Your task to perform on an android device: Search for the best rated phone case for the iPhone 8. Image 0: 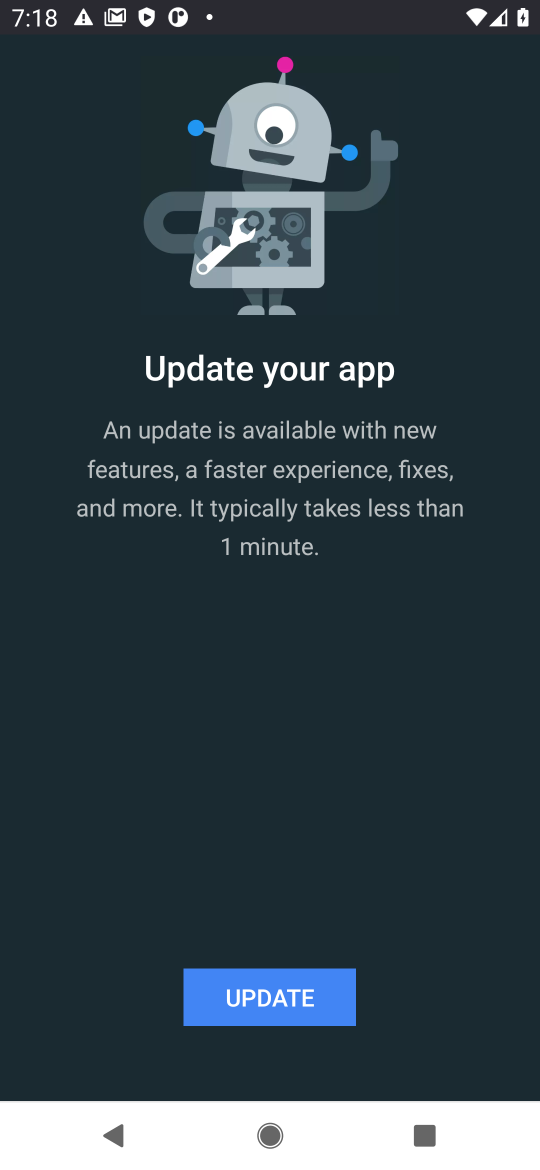
Step 0: press home button
Your task to perform on an android device: Search for the best rated phone case for the iPhone 8. Image 1: 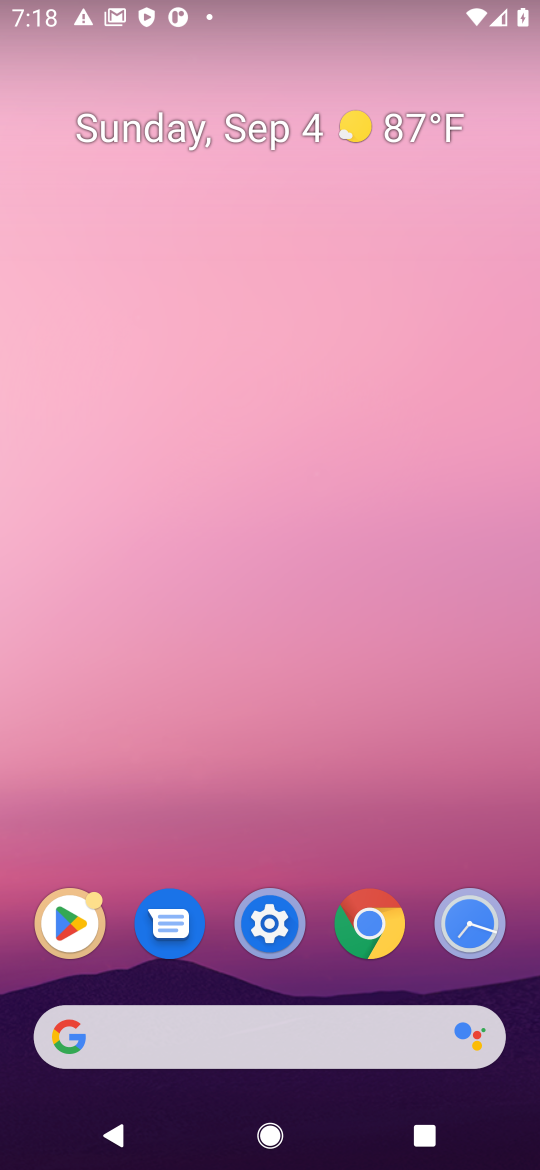
Step 1: click (335, 1031)
Your task to perform on an android device: Search for the best rated phone case for the iPhone 8. Image 2: 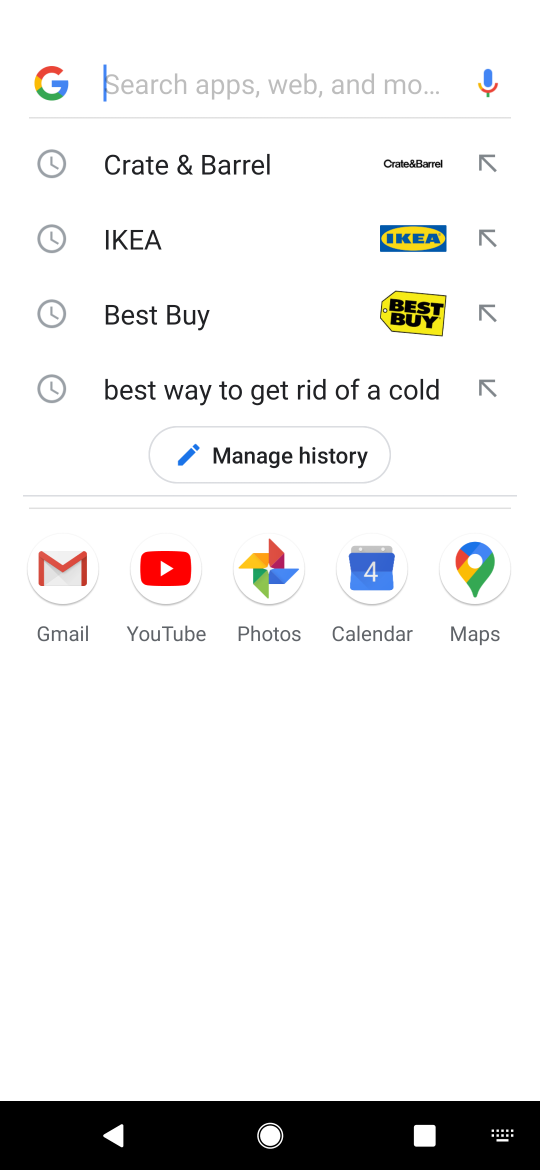
Step 2: press enter
Your task to perform on an android device: Search for the best rated phone case for the iPhone 8. Image 3: 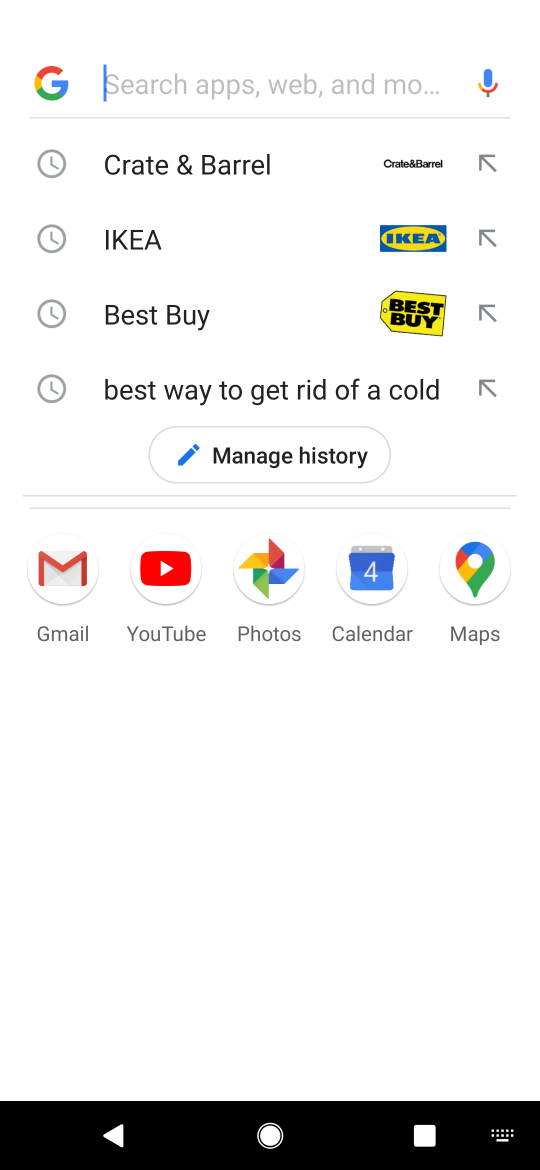
Step 3: type " best rated phone case for the iPhone 8"
Your task to perform on an android device: Search for the best rated phone case for the iPhone 8. Image 4: 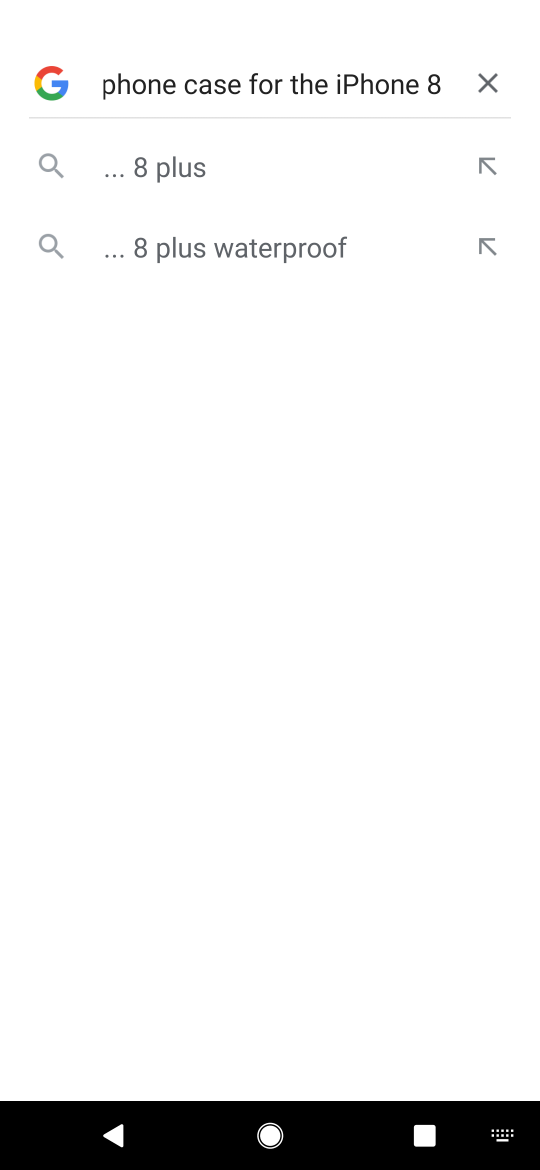
Step 4: click (58, 69)
Your task to perform on an android device: Search for the best rated phone case for the iPhone 8. Image 5: 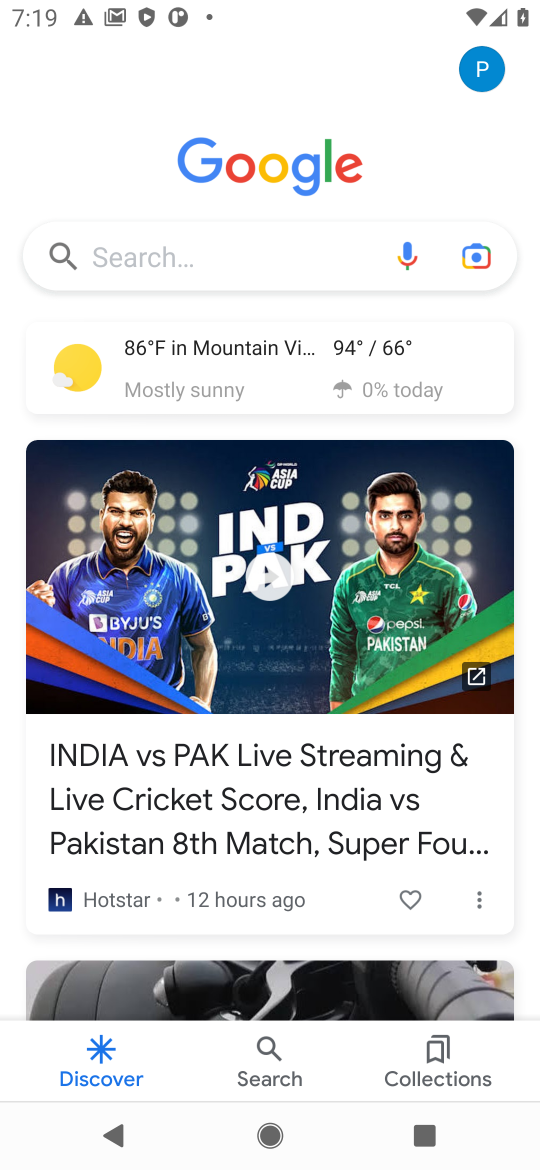
Step 5: click (229, 256)
Your task to perform on an android device: Search for the best rated phone case for the iPhone 8. Image 6: 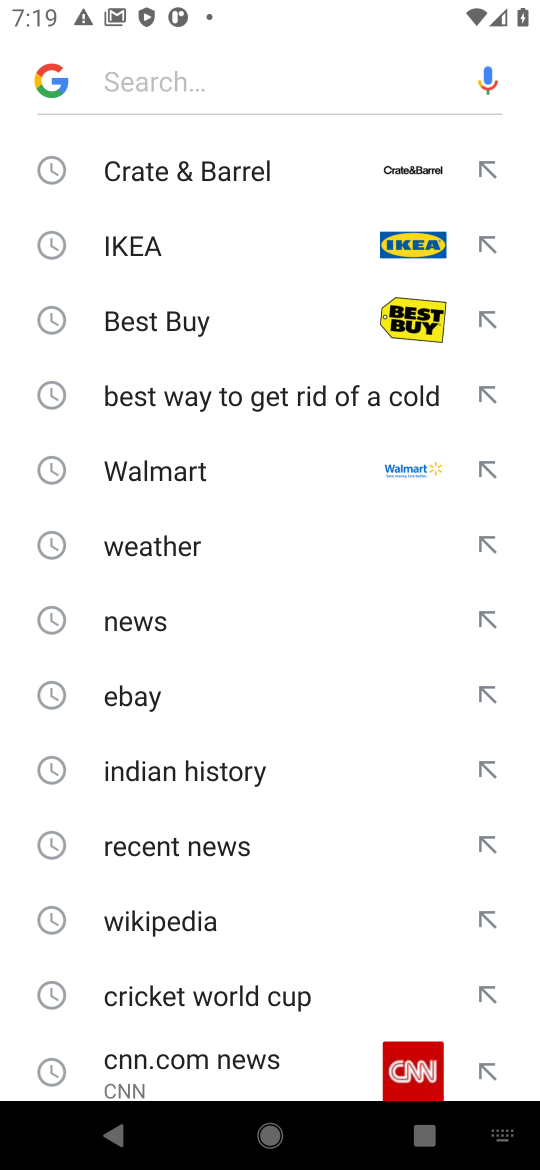
Step 6: type "best rated phone case for the iPhone 8"
Your task to perform on an android device: Search for the best rated phone case for the iPhone 8. Image 7: 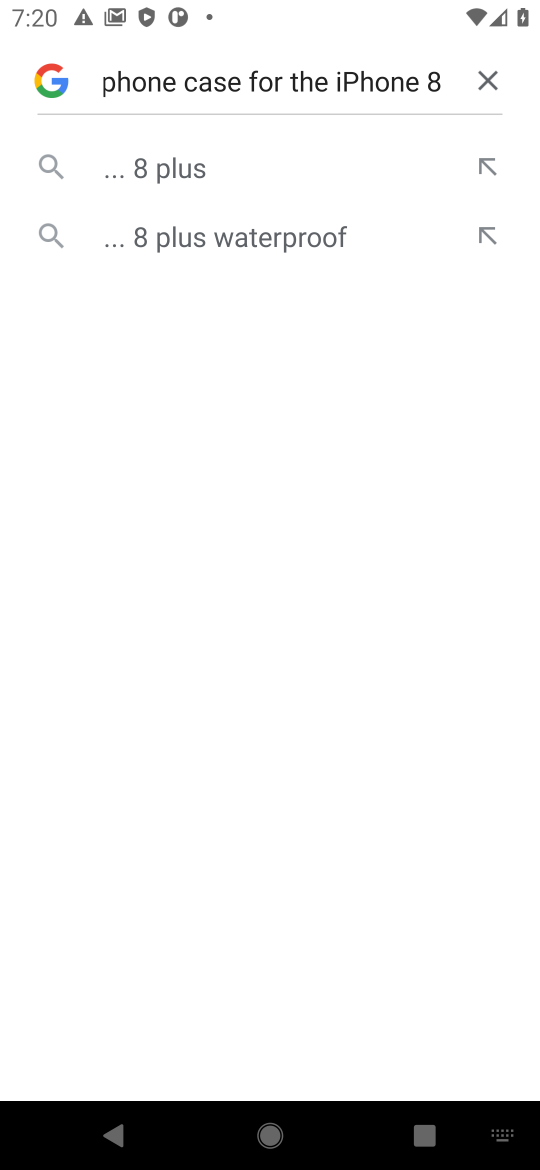
Step 7: press enter
Your task to perform on an android device: Search for the best rated phone case for the iPhone 8. Image 8: 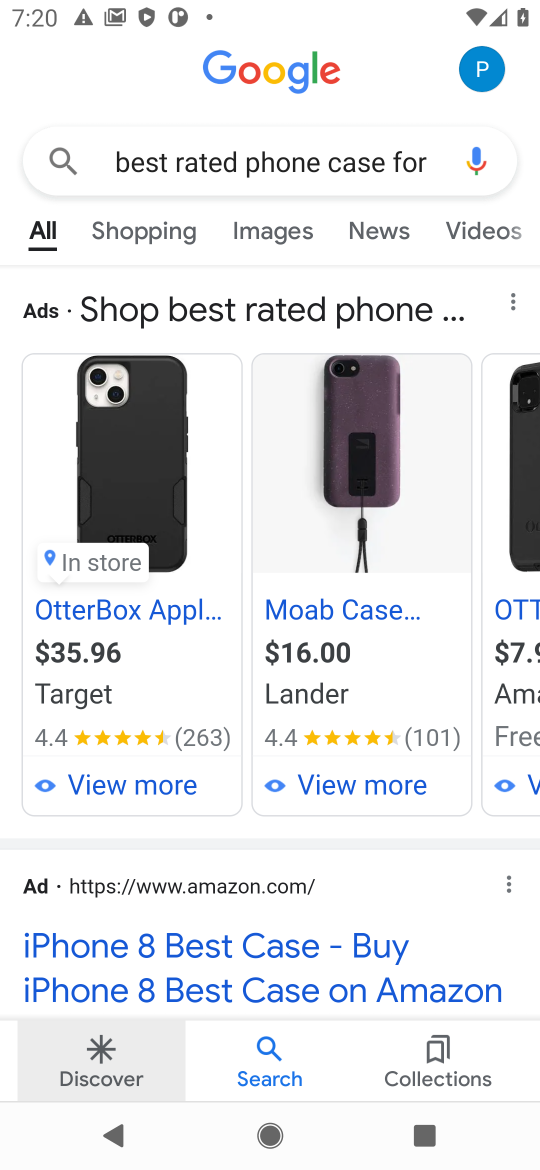
Step 8: drag from (372, 749) to (388, 547)
Your task to perform on an android device: Search for the best rated phone case for the iPhone 8. Image 9: 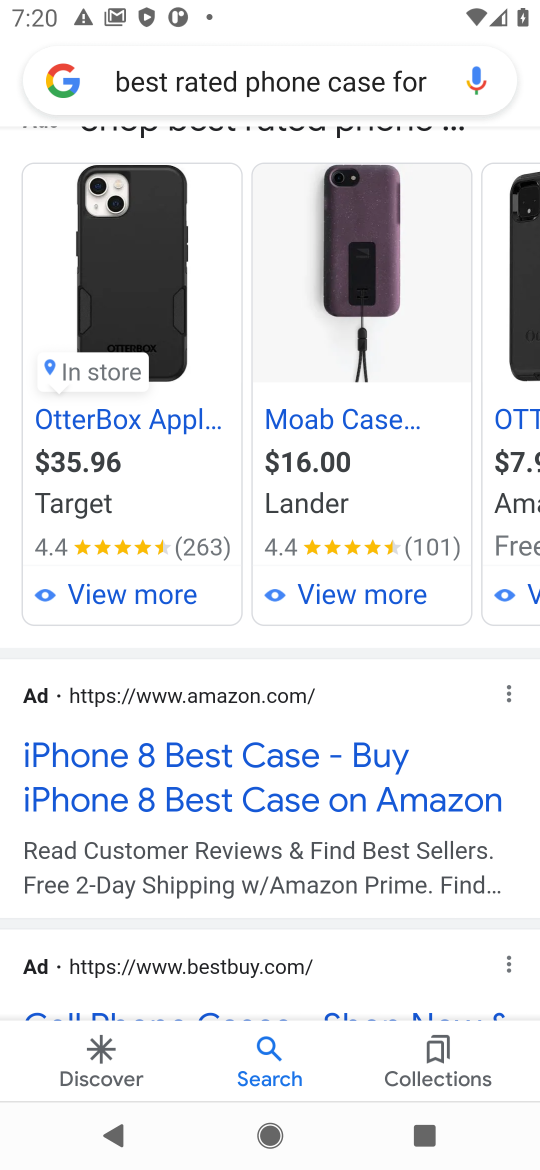
Step 9: drag from (381, 891) to (378, 568)
Your task to perform on an android device: Search for the best rated phone case for the iPhone 8. Image 10: 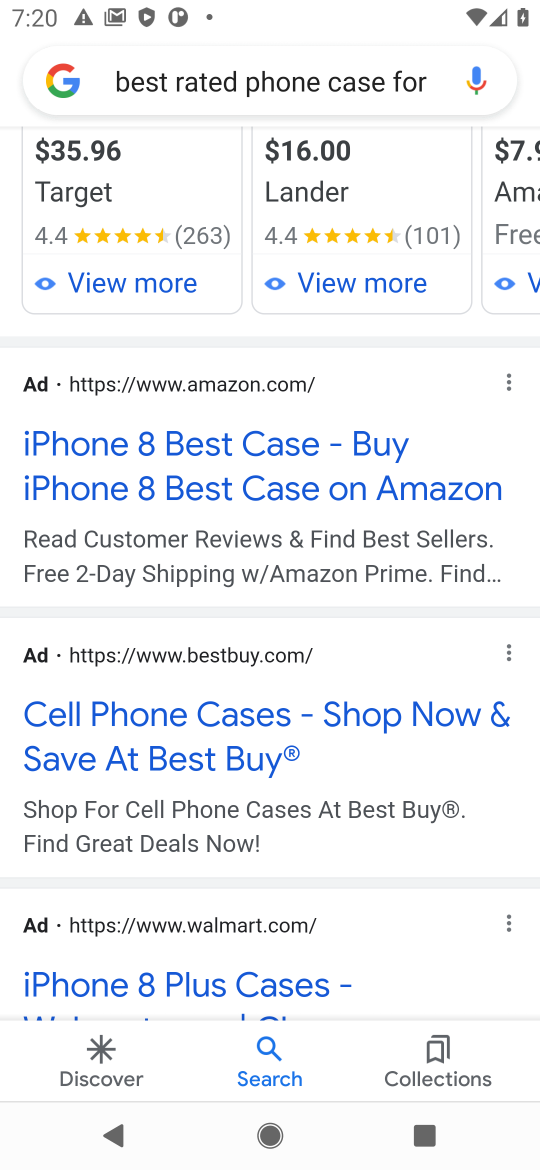
Step 10: click (250, 468)
Your task to perform on an android device: Search for the best rated phone case for the iPhone 8. Image 11: 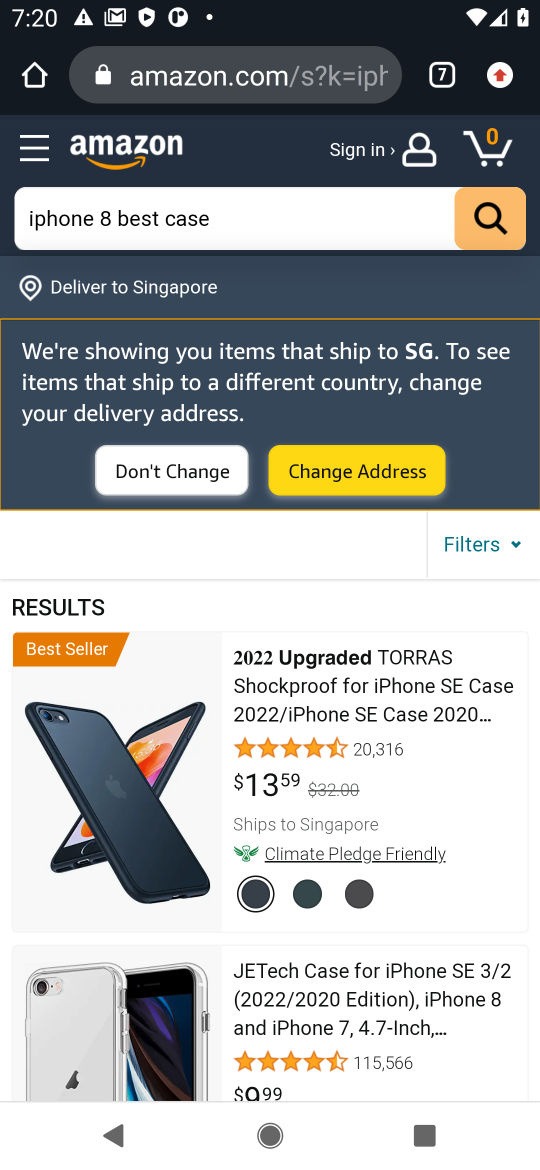
Step 11: task complete